Your task to perform on an android device: toggle wifi Image 0: 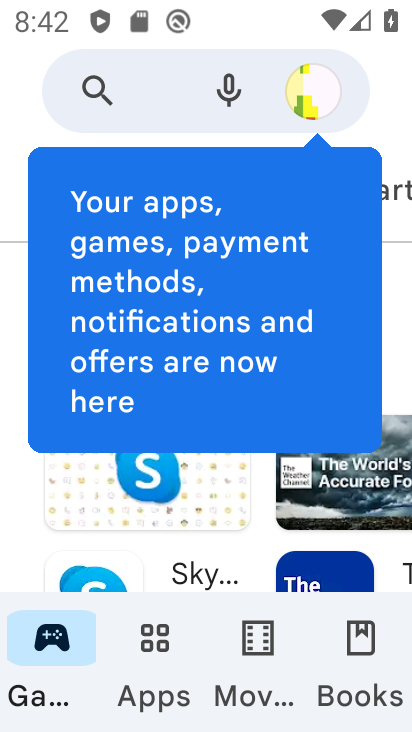
Step 0: press home button
Your task to perform on an android device: toggle wifi Image 1: 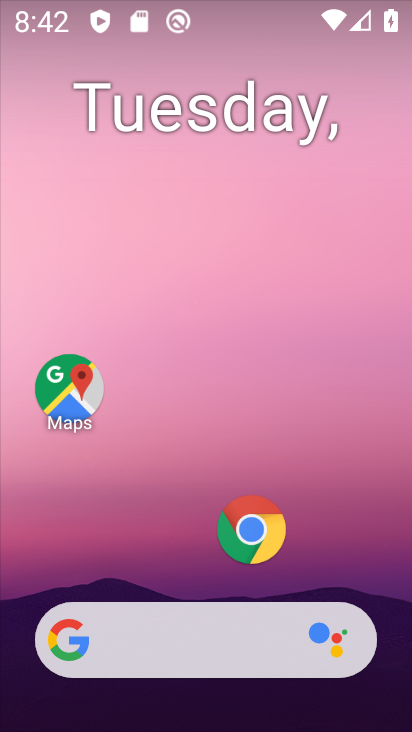
Step 1: drag from (194, 572) to (214, 23)
Your task to perform on an android device: toggle wifi Image 2: 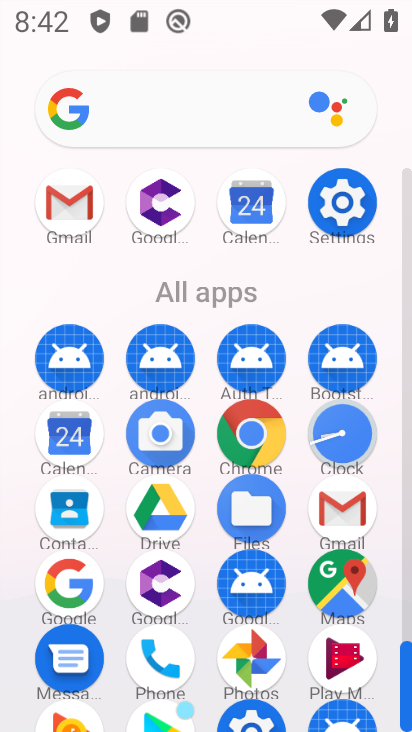
Step 2: click (341, 194)
Your task to perform on an android device: toggle wifi Image 3: 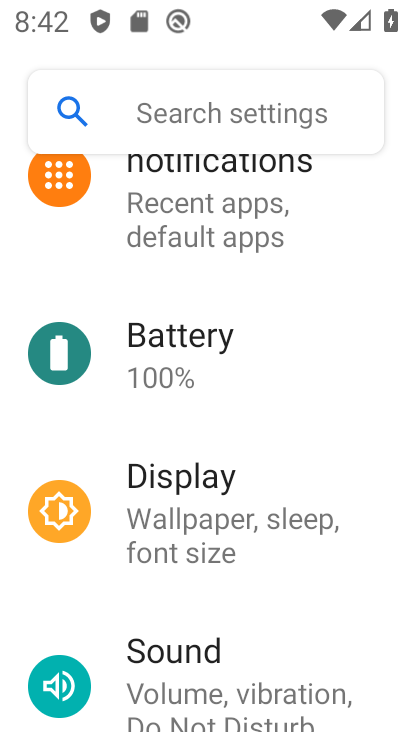
Step 3: drag from (218, 201) to (233, 677)
Your task to perform on an android device: toggle wifi Image 4: 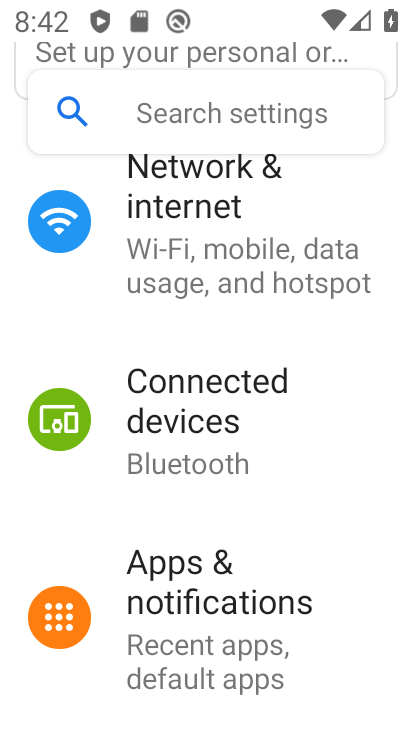
Step 4: click (209, 225)
Your task to perform on an android device: toggle wifi Image 5: 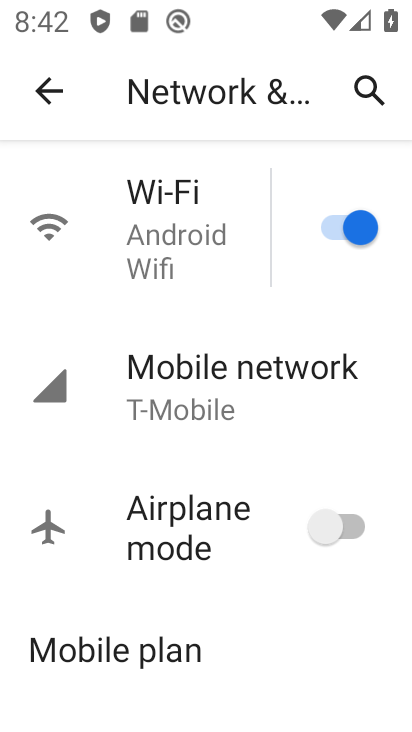
Step 5: click (328, 227)
Your task to perform on an android device: toggle wifi Image 6: 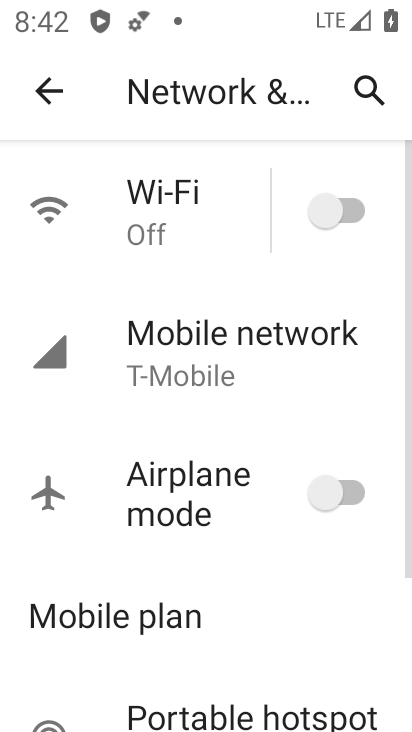
Step 6: task complete